Your task to perform on an android device: Go to Wikipedia Image 0: 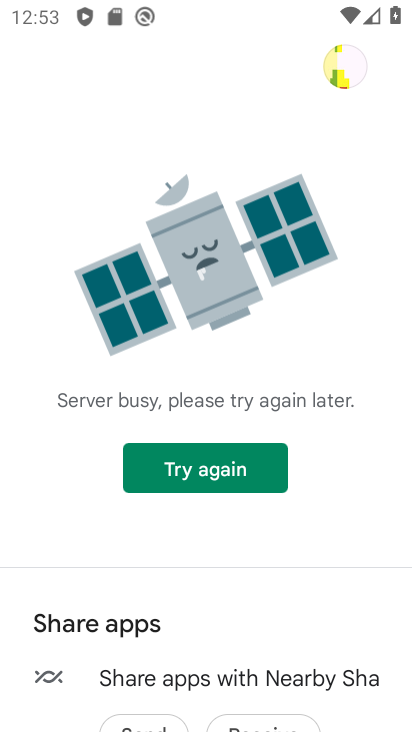
Step 0: press home button
Your task to perform on an android device: Go to Wikipedia Image 1: 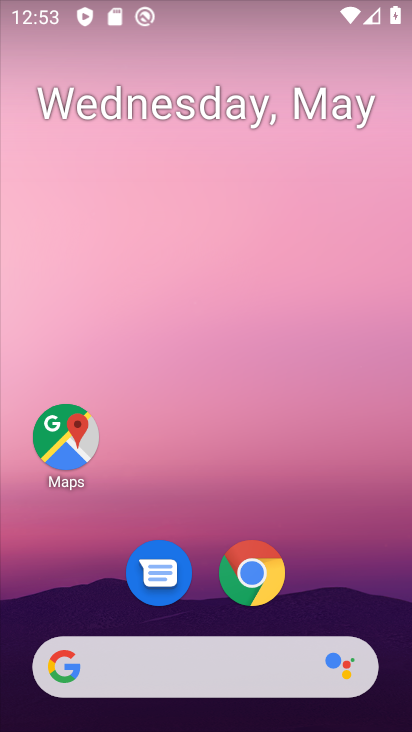
Step 1: click (249, 572)
Your task to perform on an android device: Go to Wikipedia Image 2: 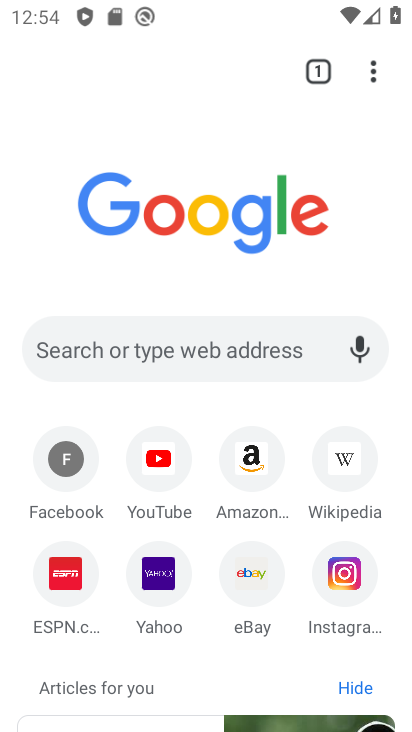
Step 2: click (336, 460)
Your task to perform on an android device: Go to Wikipedia Image 3: 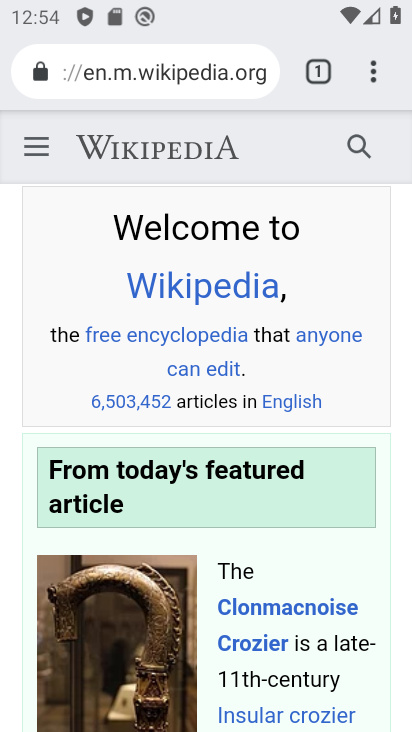
Step 3: task complete